Your task to perform on an android device: Empty the shopping cart on walmart. Add "macbook pro 15 inch" to the cart on walmart, then select checkout. Image 0: 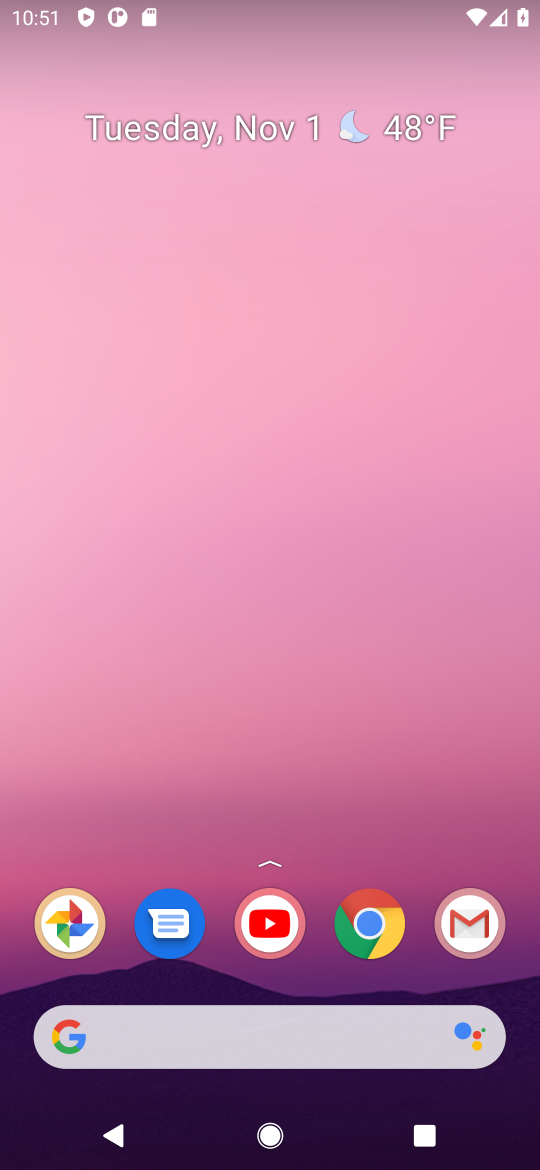
Step 0: click (363, 934)
Your task to perform on an android device: Empty the shopping cart on walmart. Add "macbook pro 15 inch" to the cart on walmart, then select checkout. Image 1: 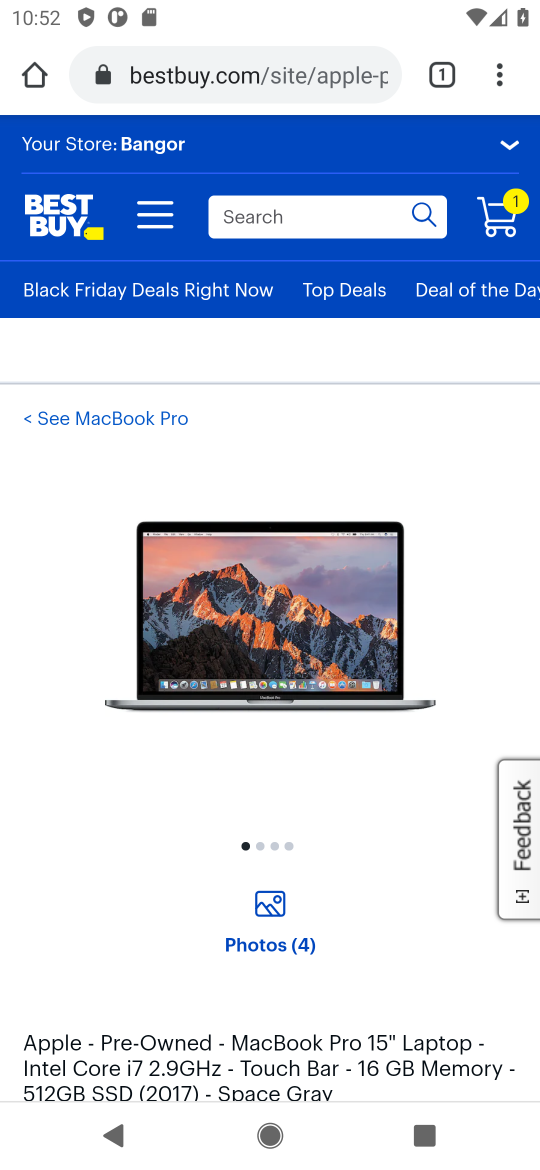
Step 1: click (293, 74)
Your task to perform on an android device: Empty the shopping cart on walmart. Add "macbook pro 15 inch" to the cart on walmart, then select checkout. Image 2: 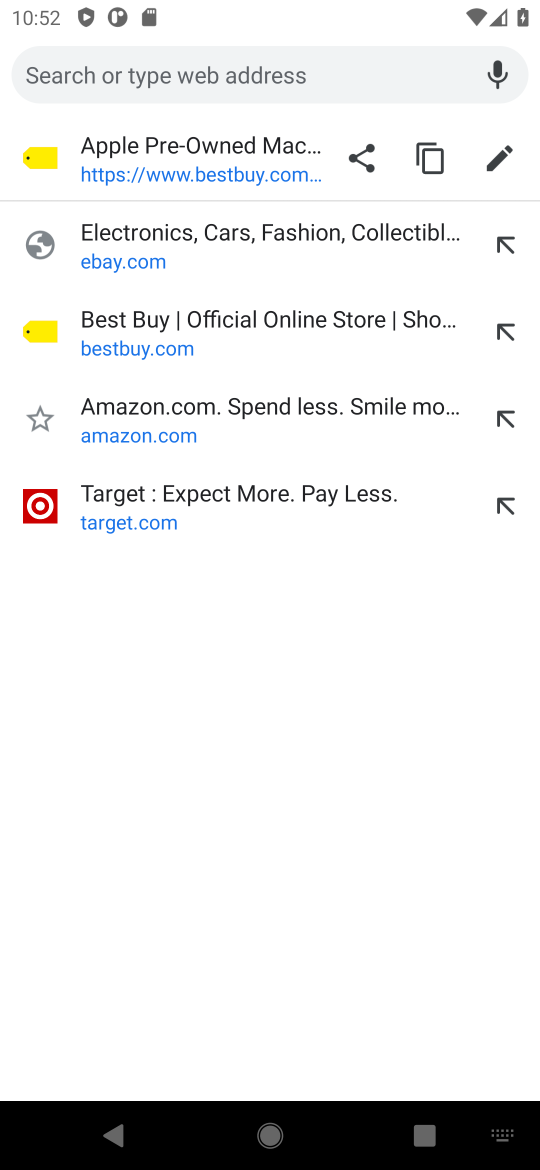
Step 2: type "walmart"
Your task to perform on an android device: Empty the shopping cart on walmart. Add "macbook pro 15 inch" to the cart on walmart, then select checkout. Image 3: 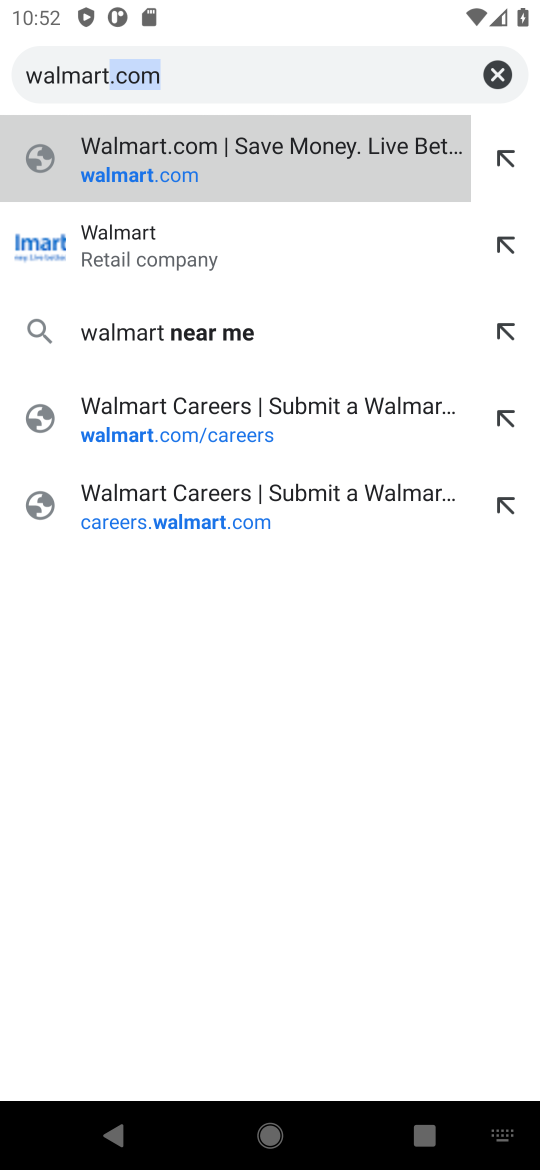
Step 3: press enter
Your task to perform on an android device: Empty the shopping cart on walmart. Add "macbook pro 15 inch" to the cart on walmart, then select checkout. Image 4: 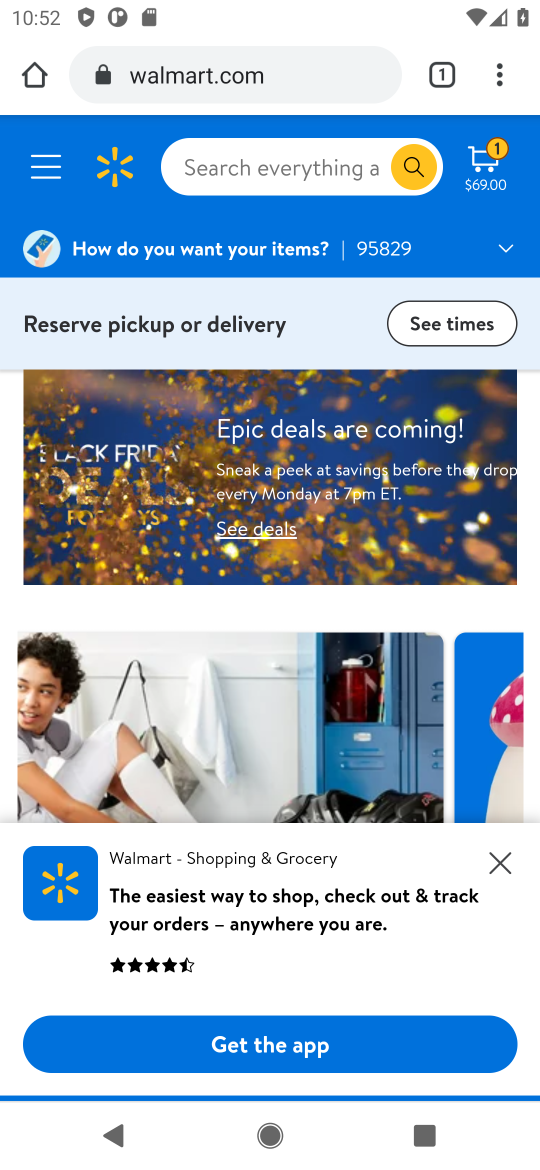
Step 4: click (255, 175)
Your task to perform on an android device: Empty the shopping cart on walmart. Add "macbook pro 15 inch" to the cart on walmart, then select checkout. Image 5: 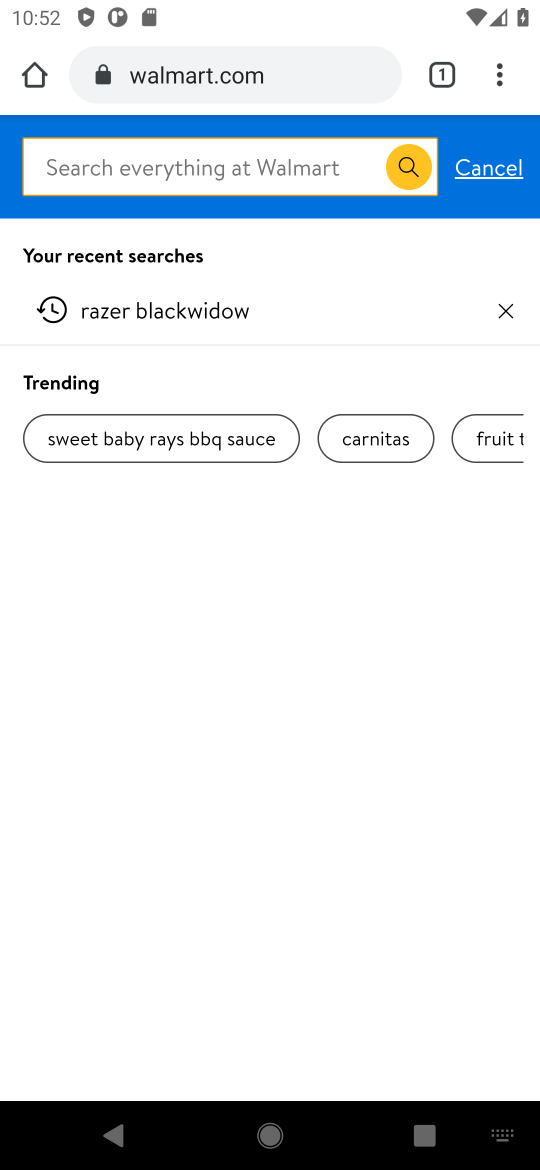
Step 5: type "macbook pro 15 inch"
Your task to perform on an android device: Empty the shopping cart on walmart. Add "macbook pro 15 inch" to the cart on walmart, then select checkout. Image 6: 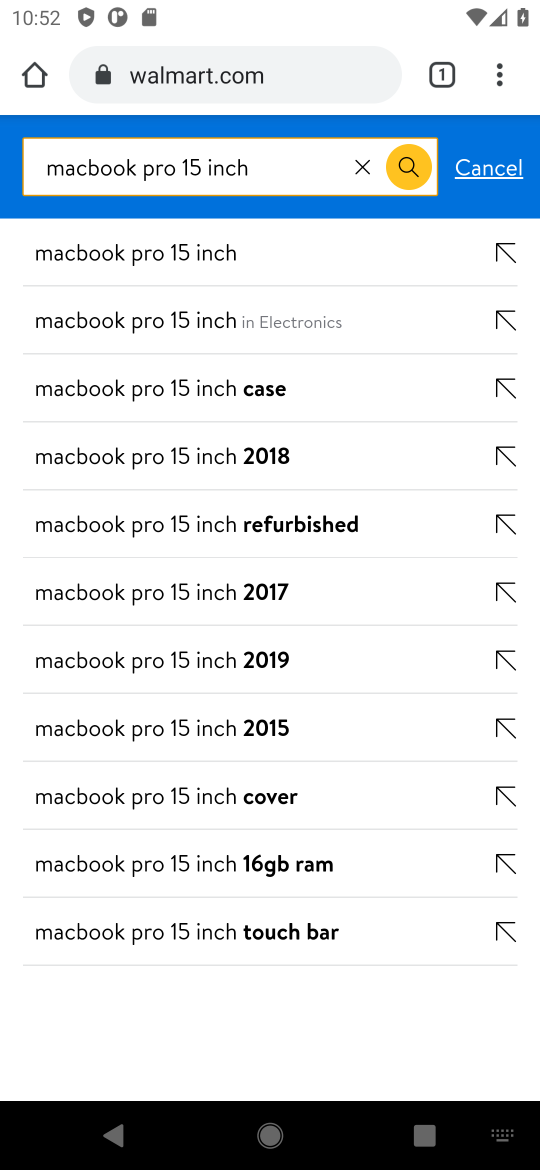
Step 6: click (314, 265)
Your task to perform on an android device: Empty the shopping cart on walmart. Add "macbook pro 15 inch" to the cart on walmart, then select checkout. Image 7: 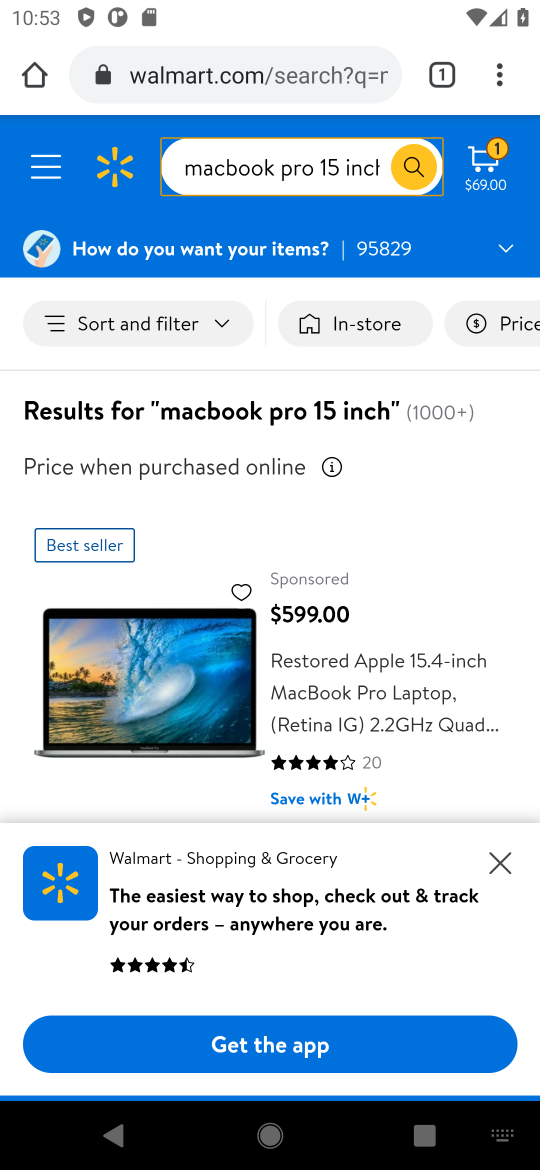
Step 7: drag from (313, 744) to (359, 328)
Your task to perform on an android device: Empty the shopping cart on walmart. Add "macbook pro 15 inch" to the cart on walmart, then select checkout. Image 8: 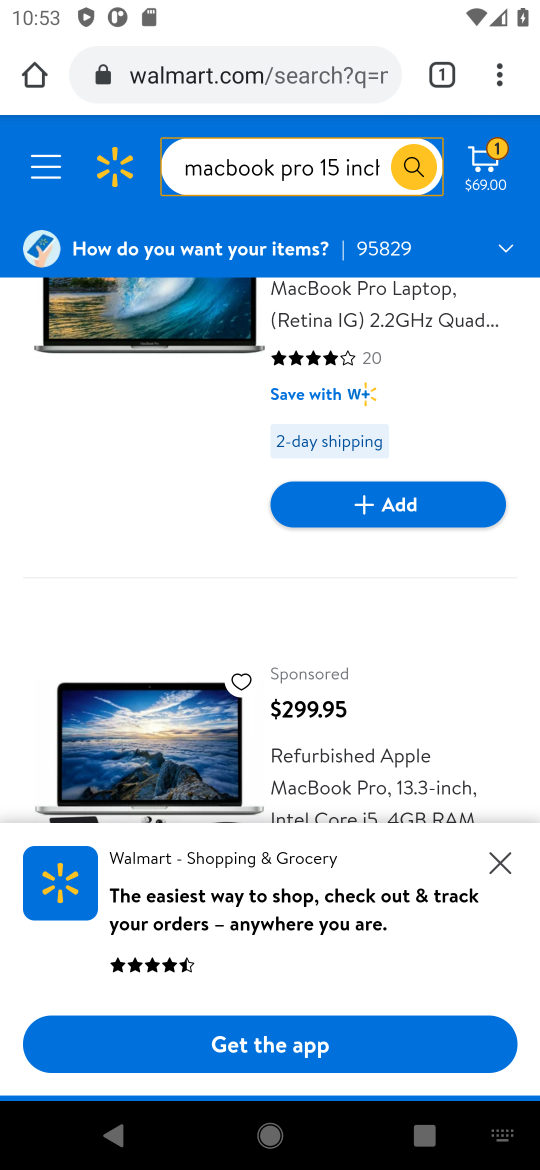
Step 8: drag from (375, 332) to (359, 590)
Your task to perform on an android device: Empty the shopping cart on walmart. Add "macbook pro 15 inch" to the cart on walmart, then select checkout. Image 9: 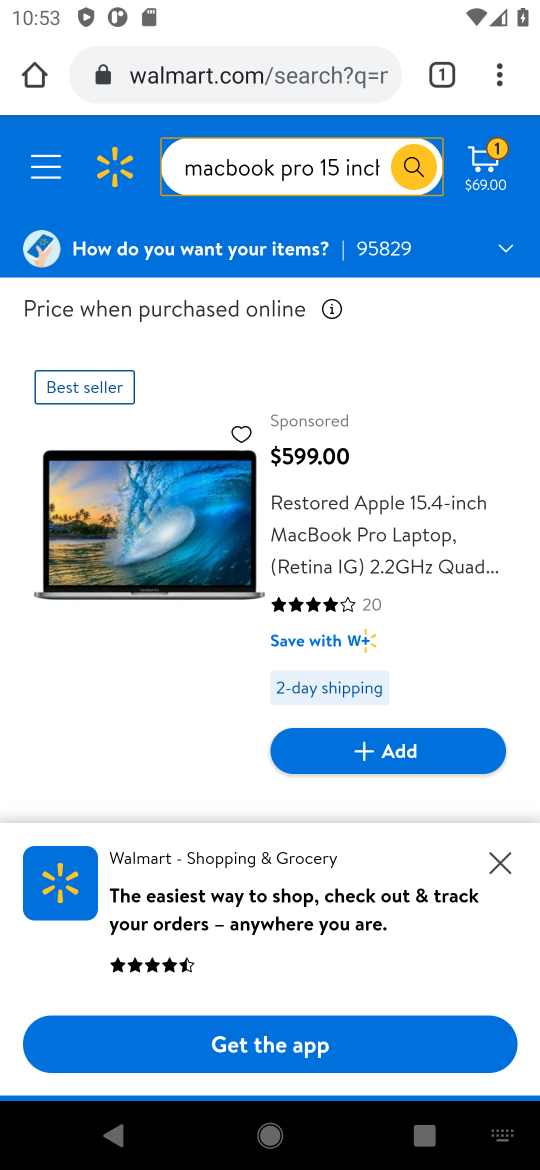
Step 9: click (396, 749)
Your task to perform on an android device: Empty the shopping cart on walmart. Add "macbook pro 15 inch" to the cart on walmart, then select checkout. Image 10: 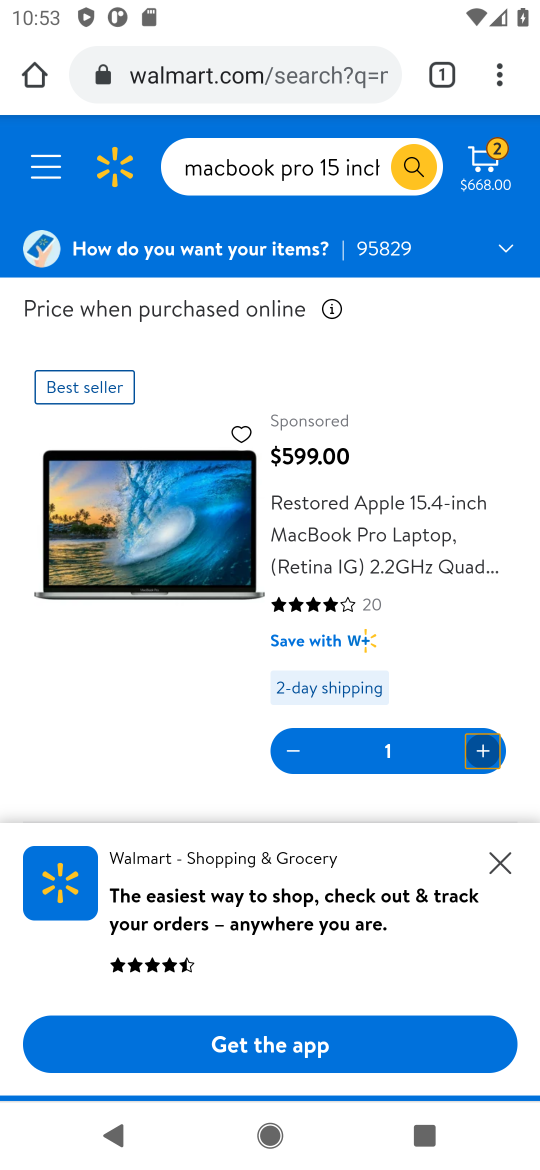
Step 10: click (493, 875)
Your task to perform on an android device: Empty the shopping cart on walmart. Add "macbook pro 15 inch" to the cart on walmart, then select checkout. Image 11: 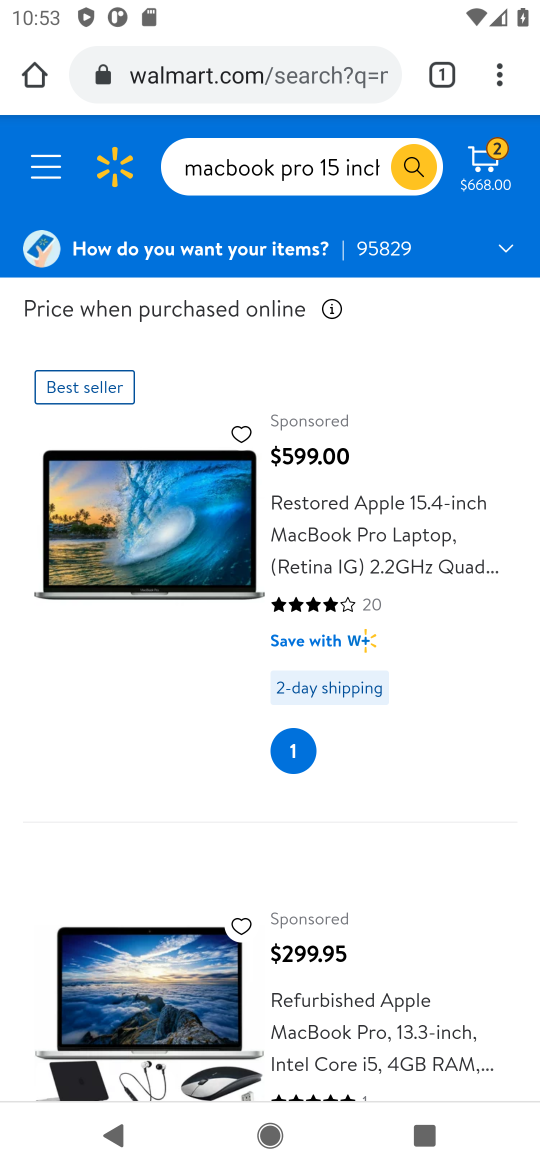
Step 11: click (493, 145)
Your task to perform on an android device: Empty the shopping cart on walmart. Add "macbook pro 15 inch" to the cart on walmart, then select checkout. Image 12: 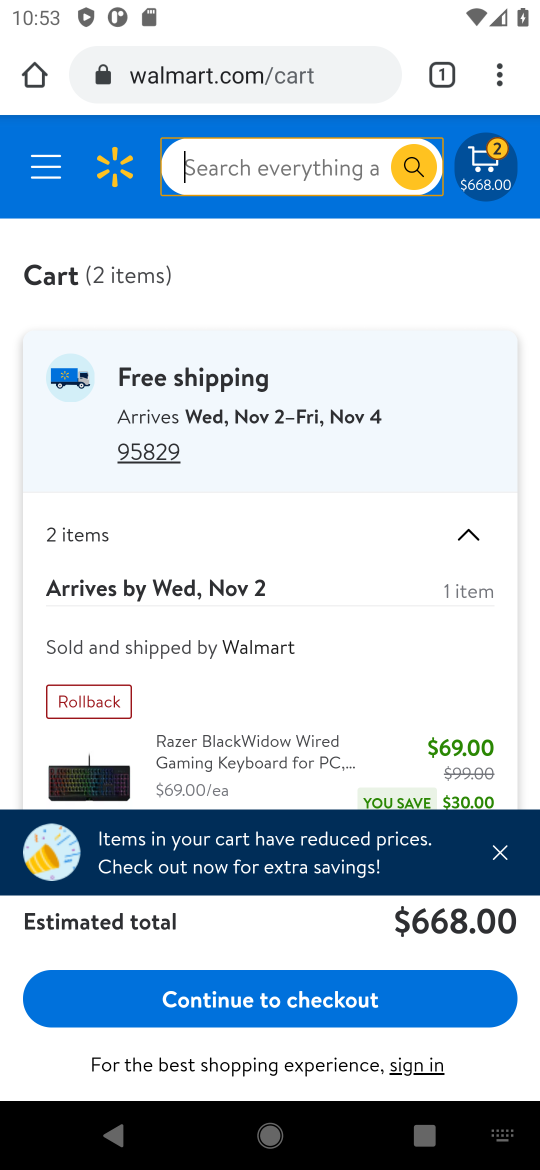
Step 12: click (289, 999)
Your task to perform on an android device: Empty the shopping cart on walmart. Add "macbook pro 15 inch" to the cart on walmart, then select checkout. Image 13: 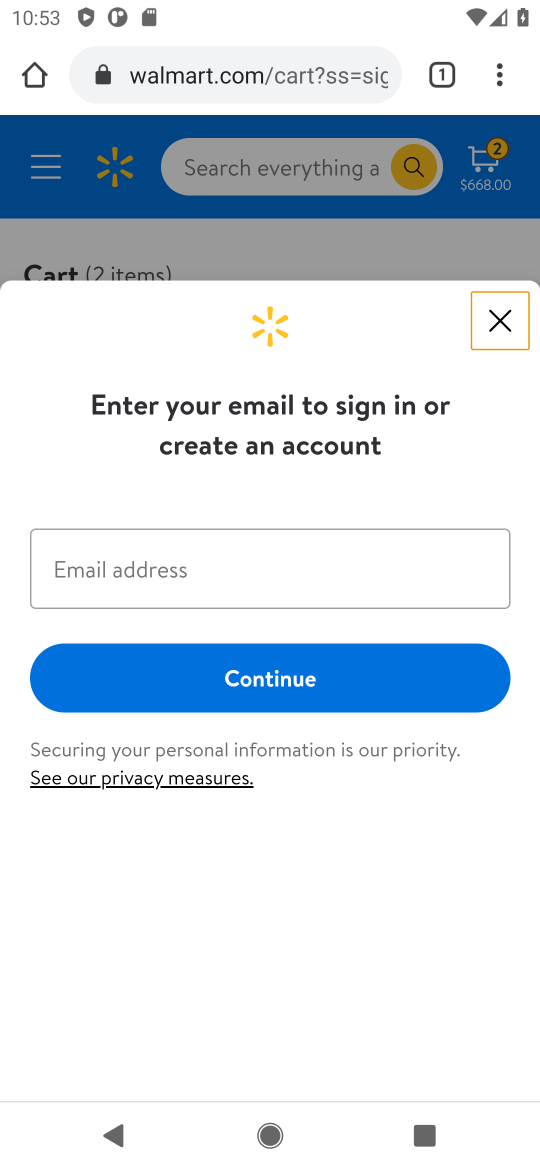
Step 13: task complete